Your task to perform on an android device: Open notification settings Image 0: 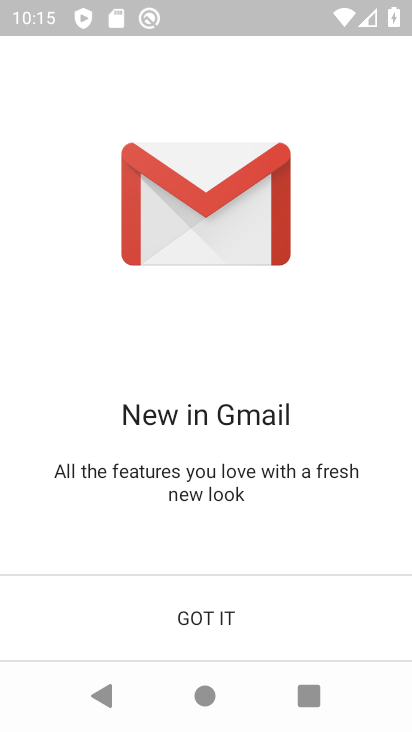
Step 0: press home button
Your task to perform on an android device: Open notification settings Image 1: 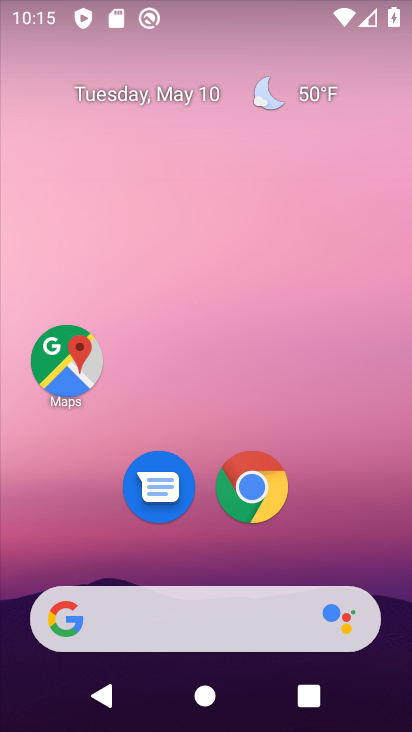
Step 1: drag from (391, 536) to (211, 93)
Your task to perform on an android device: Open notification settings Image 2: 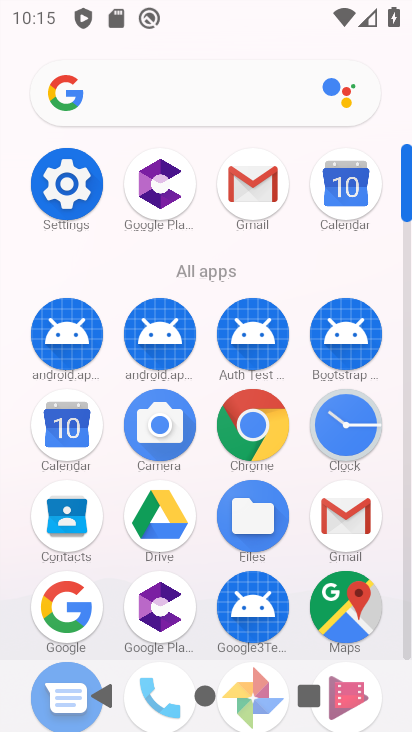
Step 2: click (86, 204)
Your task to perform on an android device: Open notification settings Image 3: 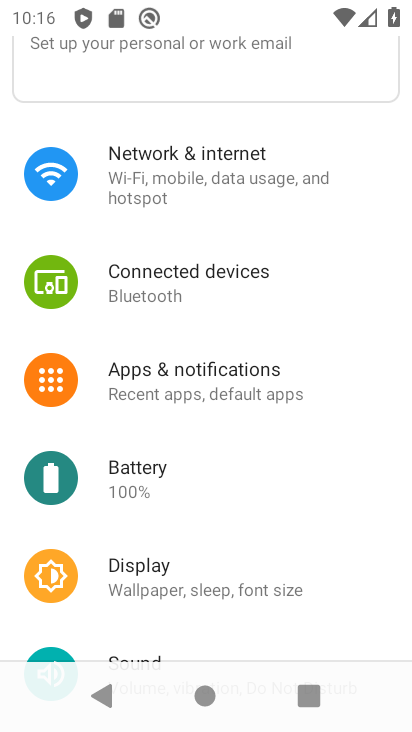
Step 3: click (264, 411)
Your task to perform on an android device: Open notification settings Image 4: 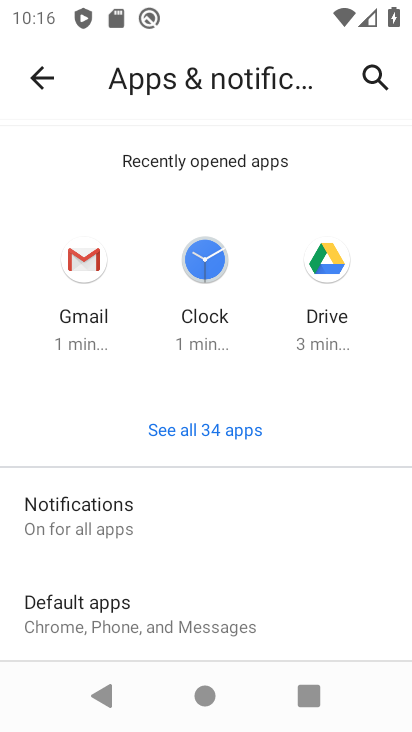
Step 4: drag from (143, 569) to (179, 339)
Your task to perform on an android device: Open notification settings Image 5: 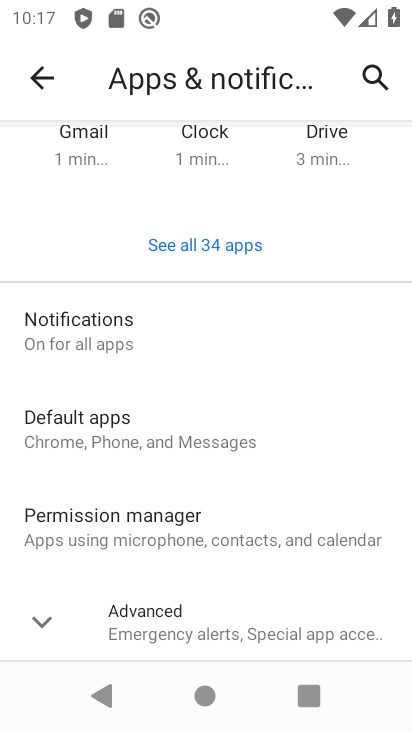
Step 5: click (189, 371)
Your task to perform on an android device: Open notification settings Image 6: 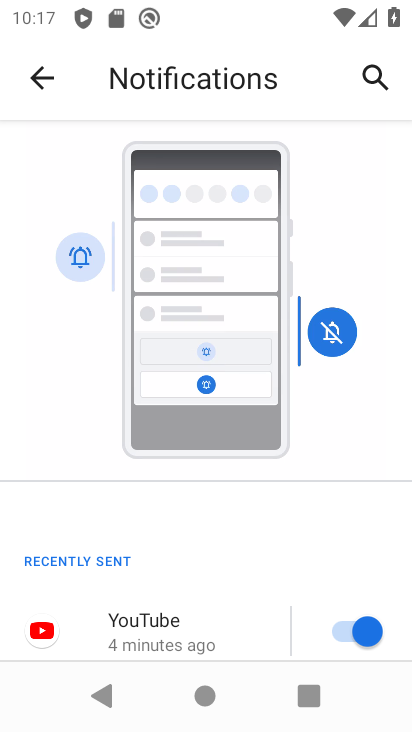
Step 6: drag from (290, 593) to (274, 206)
Your task to perform on an android device: Open notification settings Image 7: 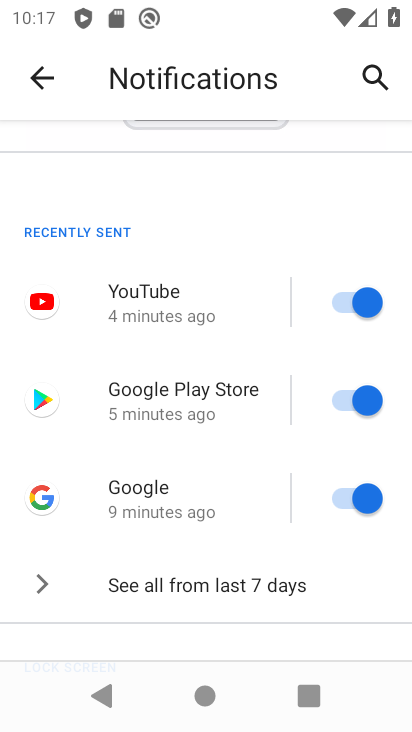
Step 7: drag from (362, 633) to (321, 362)
Your task to perform on an android device: Open notification settings Image 8: 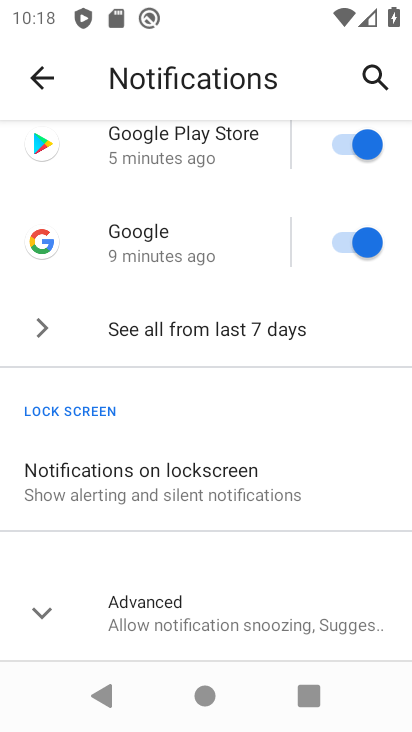
Step 8: click (341, 253)
Your task to perform on an android device: Open notification settings Image 9: 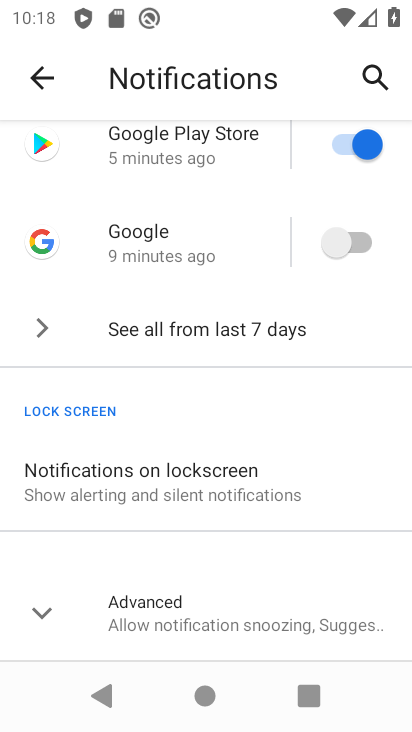
Step 9: click (364, 160)
Your task to perform on an android device: Open notification settings Image 10: 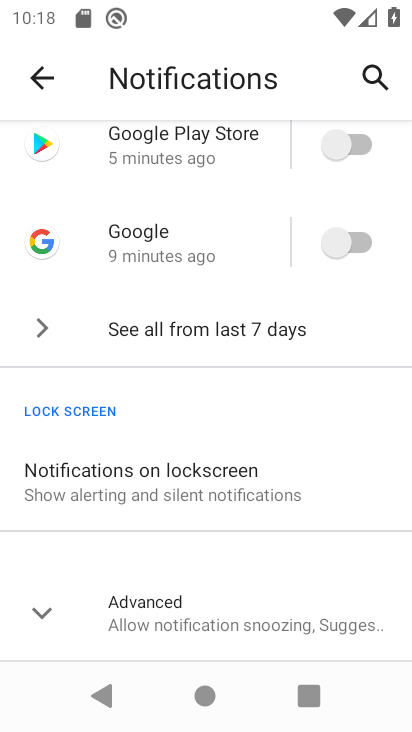
Step 10: click (236, 636)
Your task to perform on an android device: Open notification settings Image 11: 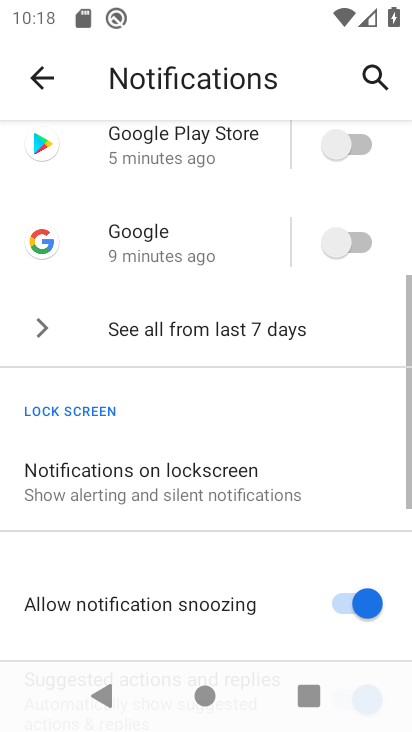
Step 11: click (361, 592)
Your task to perform on an android device: Open notification settings Image 12: 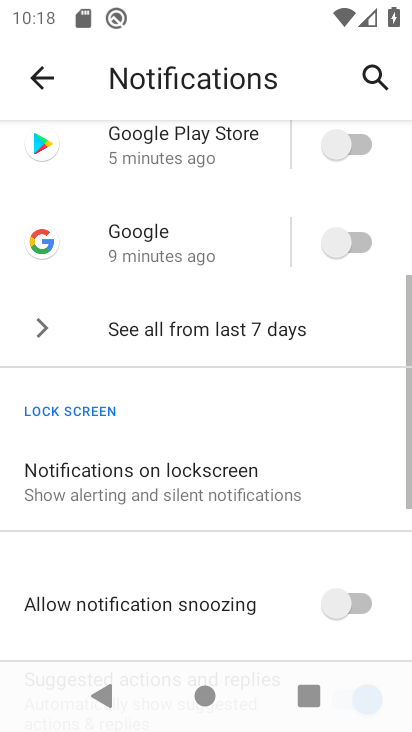
Step 12: task complete